Your task to perform on an android device: Open maps Image 0: 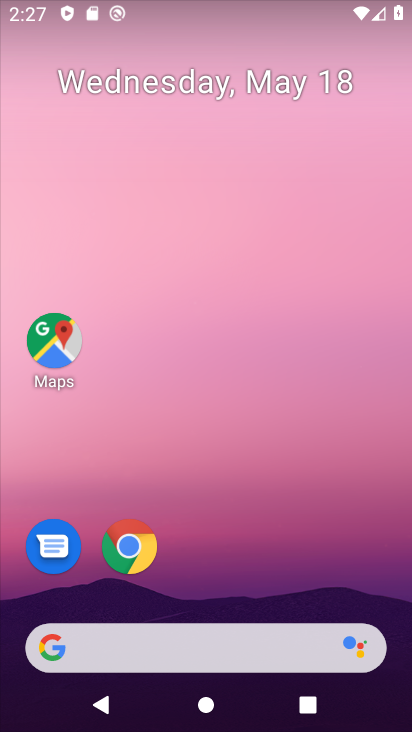
Step 0: drag from (232, 728) to (231, 199)
Your task to perform on an android device: Open maps Image 1: 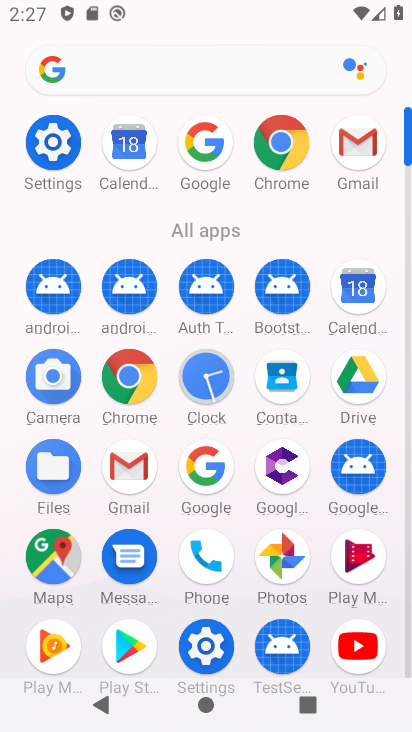
Step 1: click (63, 551)
Your task to perform on an android device: Open maps Image 2: 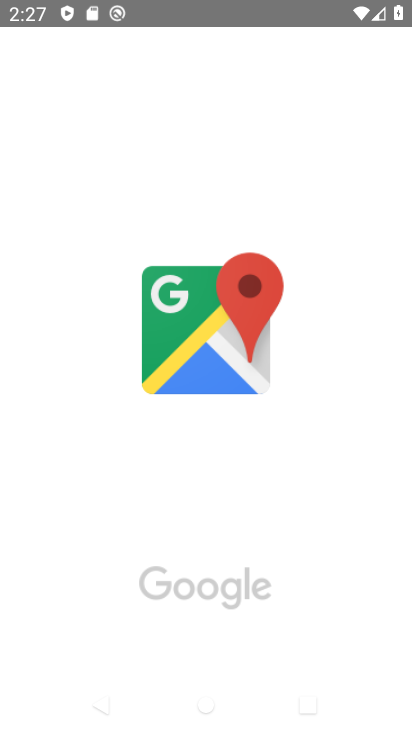
Step 2: task complete